Your task to perform on an android device: Go to Android settings Image 0: 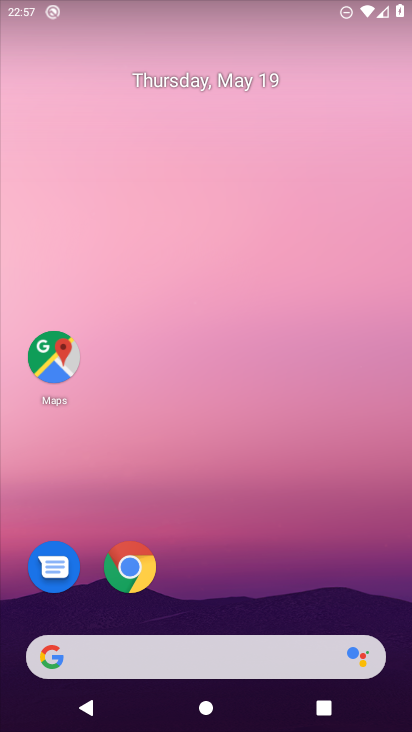
Step 0: press home button
Your task to perform on an android device: Go to Android settings Image 1: 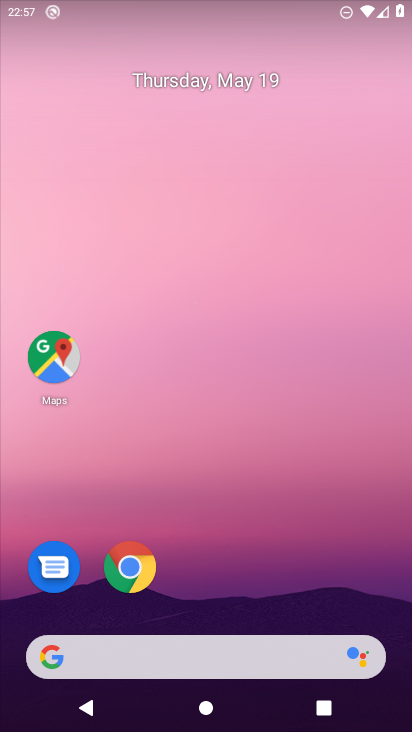
Step 1: drag from (213, 613) to (235, 193)
Your task to perform on an android device: Go to Android settings Image 2: 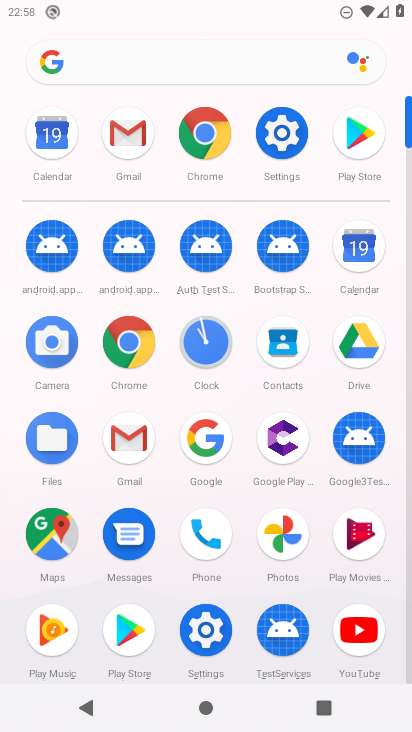
Step 2: click (290, 124)
Your task to perform on an android device: Go to Android settings Image 3: 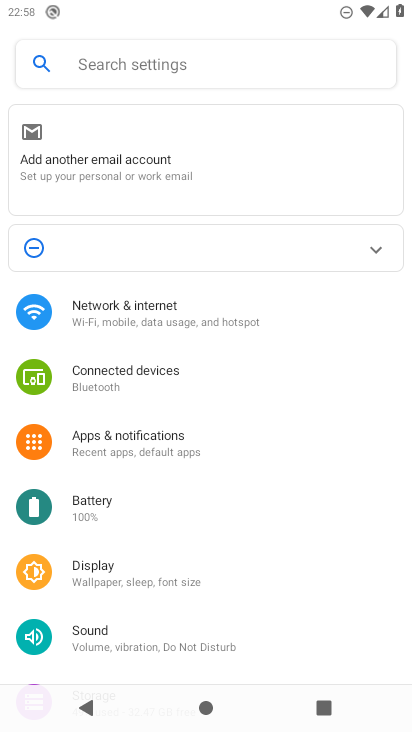
Step 3: drag from (179, 584) to (200, 69)
Your task to perform on an android device: Go to Android settings Image 4: 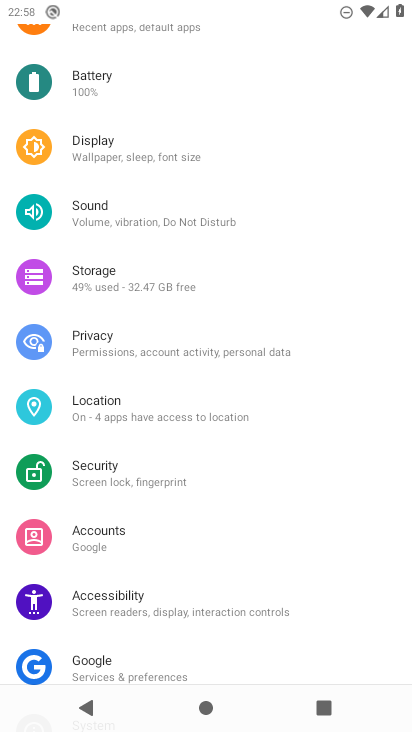
Step 4: drag from (149, 606) to (139, 204)
Your task to perform on an android device: Go to Android settings Image 5: 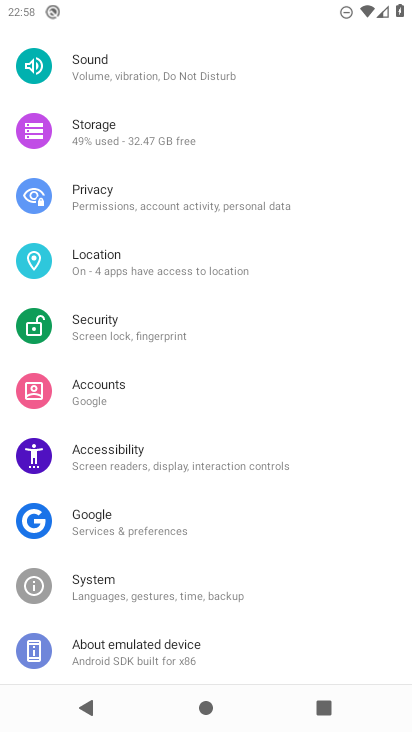
Step 5: click (201, 658)
Your task to perform on an android device: Go to Android settings Image 6: 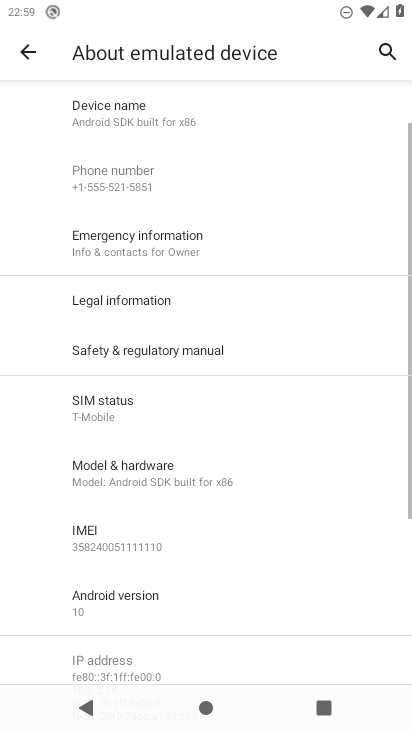
Step 6: task complete